Your task to perform on an android device: turn off smart reply in the gmail app Image 0: 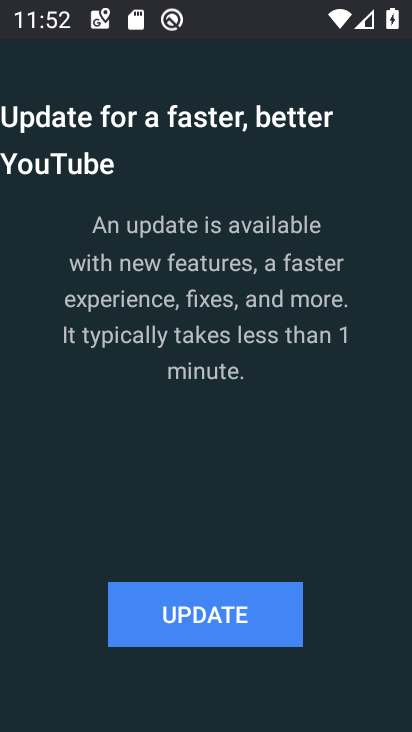
Step 0: drag from (341, 535) to (352, 200)
Your task to perform on an android device: turn off smart reply in the gmail app Image 1: 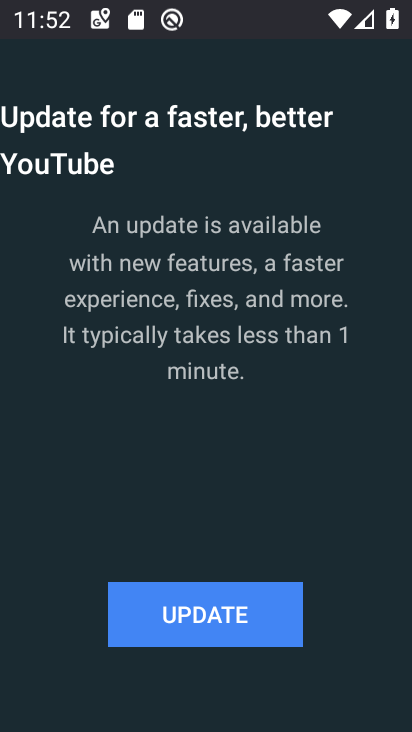
Step 1: press home button
Your task to perform on an android device: turn off smart reply in the gmail app Image 2: 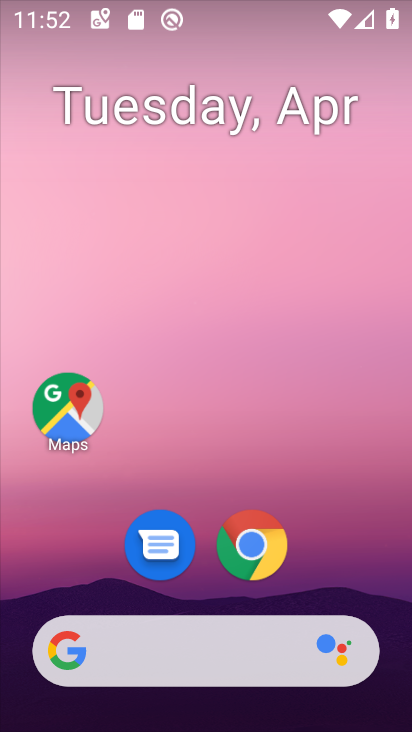
Step 2: drag from (354, 441) to (313, 23)
Your task to perform on an android device: turn off smart reply in the gmail app Image 3: 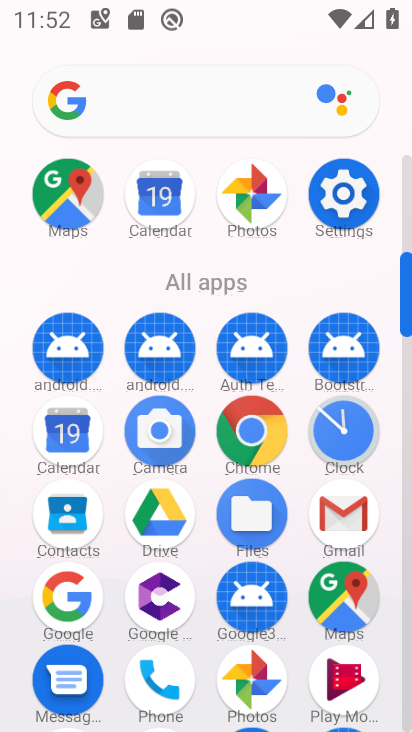
Step 3: click (330, 512)
Your task to perform on an android device: turn off smart reply in the gmail app Image 4: 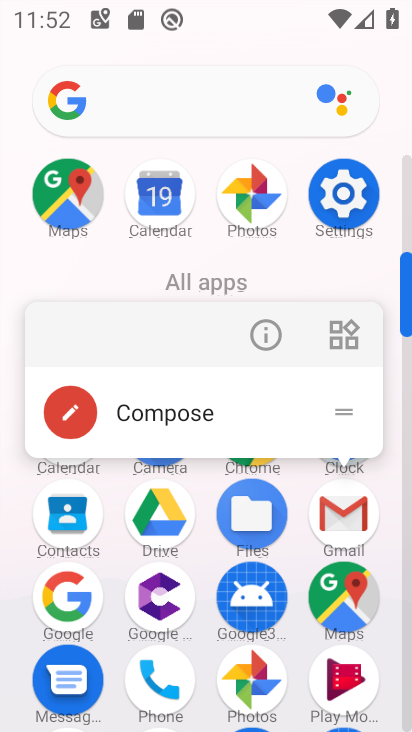
Step 4: click (339, 504)
Your task to perform on an android device: turn off smart reply in the gmail app Image 5: 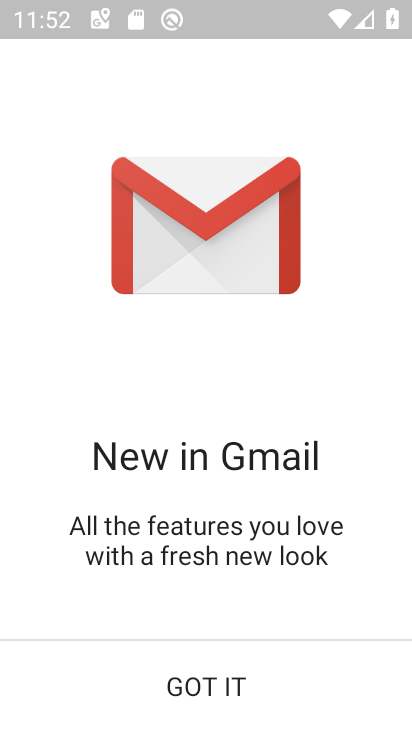
Step 5: click (239, 688)
Your task to perform on an android device: turn off smart reply in the gmail app Image 6: 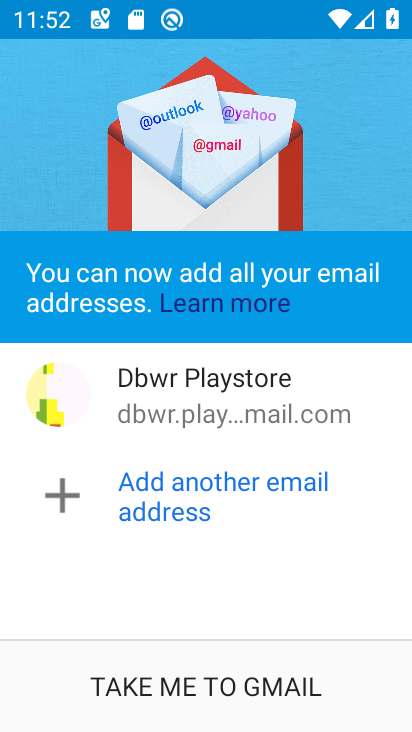
Step 6: click (232, 687)
Your task to perform on an android device: turn off smart reply in the gmail app Image 7: 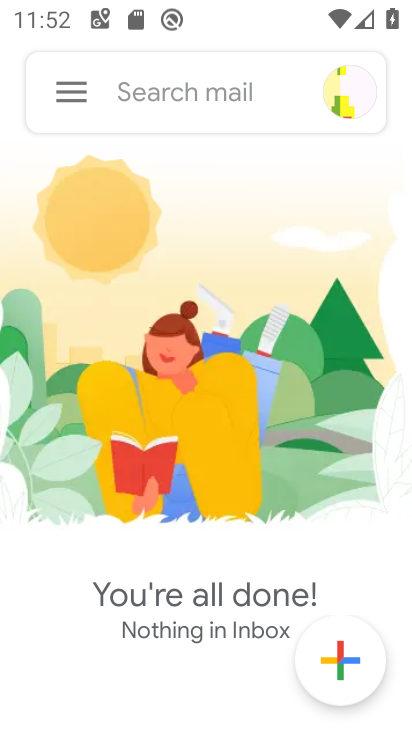
Step 7: click (59, 96)
Your task to perform on an android device: turn off smart reply in the gmail app Image 8: 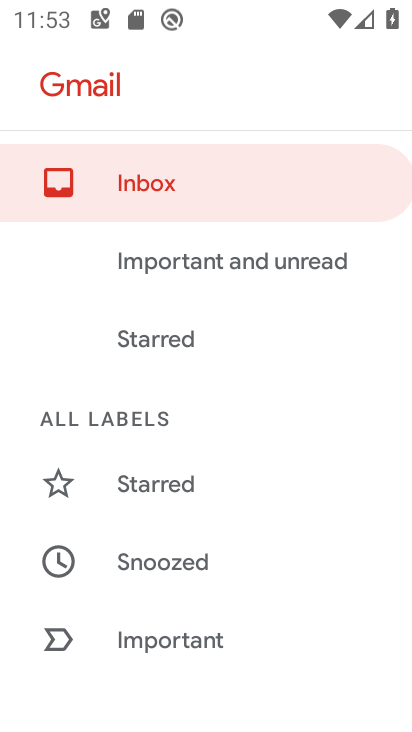
Step 8: drag from (308, 589) to (330, 203)
Your task to perform on an android device: turn off smart reply in the gmail app Image 9: 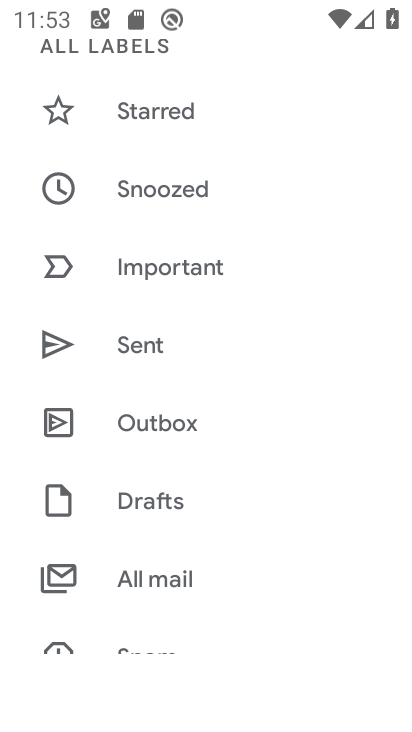
Step 9: drag from (292, 592) to (268, 84)
Your task to perform on an android device: turn off smart reply in the gmail app Image 10: 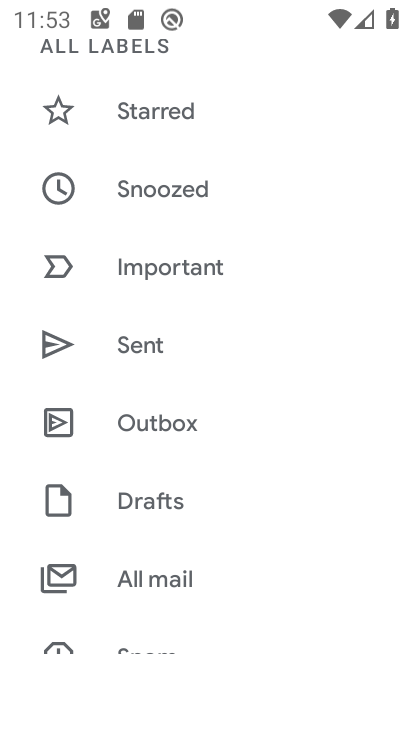
Step 10: drag from (245, 559) to (261, 266)
Your task to perform on an android device: turn off smart reply in the gmail app Image 11: 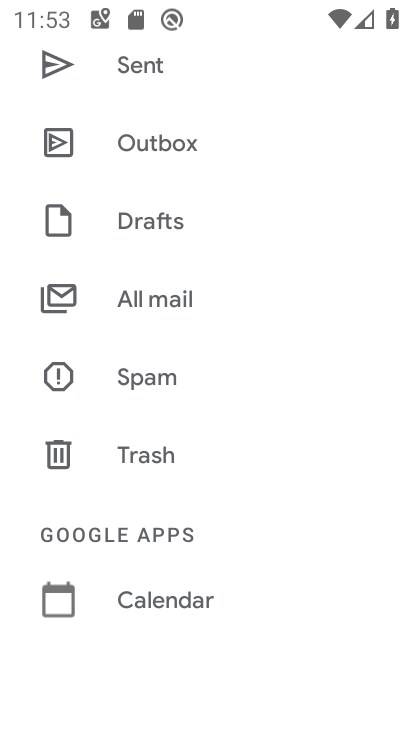
Step 11: drag from (193, 173) to (153, 605)
Your task to perform on an android device: turn off smart reply in the gmail app Image 12: 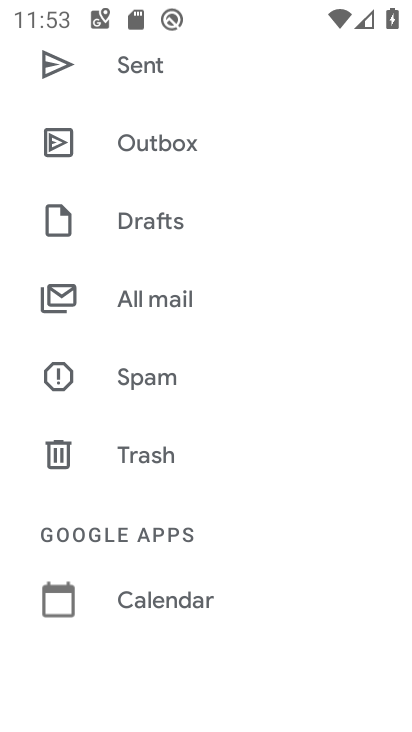
Step 12: drag from (229, 176) to (239, 598)
Your task to perform on an android device: turn off smart reply in the gmail app Image 13: 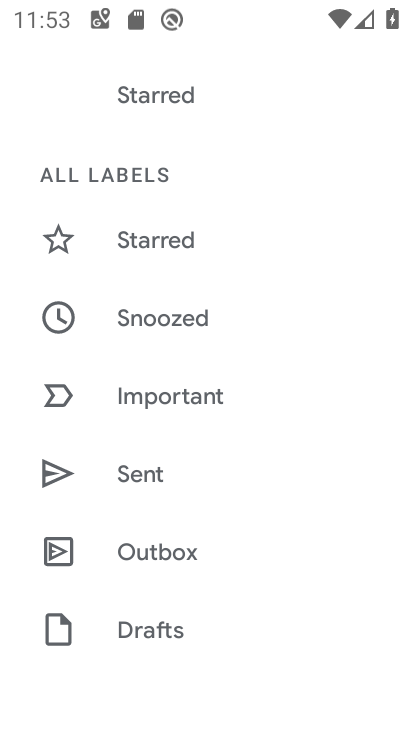
Step 13: drag from (235, 321) to (220, 580)
Your task to perform on an android device: turn off smart reply in the gmail app Image 14: 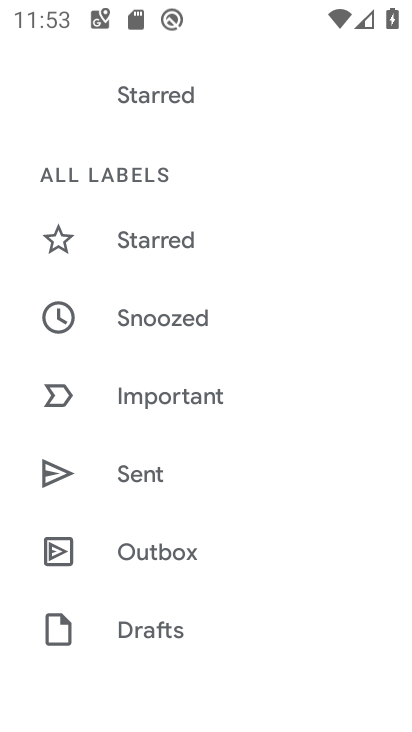
Step 14: drag from (237, 310) to (252, 700)
Your task to perform on an android device: turn off smart reply in the gmail app Image 15: 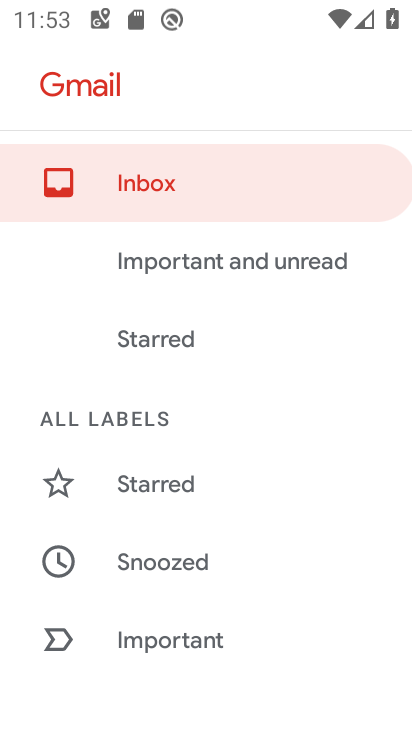
Step 15: drag from (286, 601) to (319, 143)
Your task to perform on an android device: turn off smart reply in the gmail app Image 16: 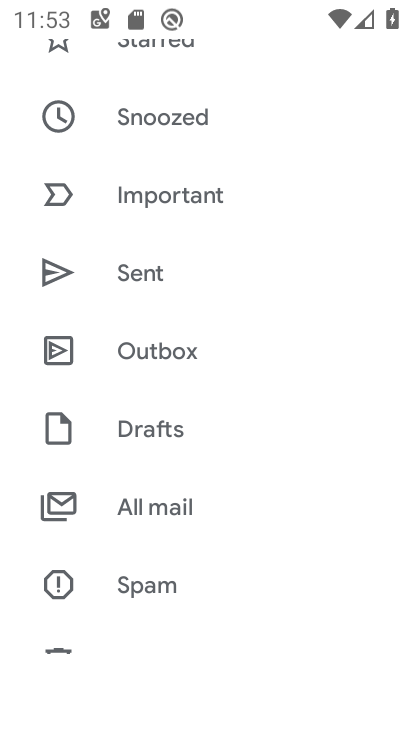
Step 16: drag from (215, 647) to (217, 206)
Your task to perform on an android device: turn off smart reply in the gmail app Image 17: 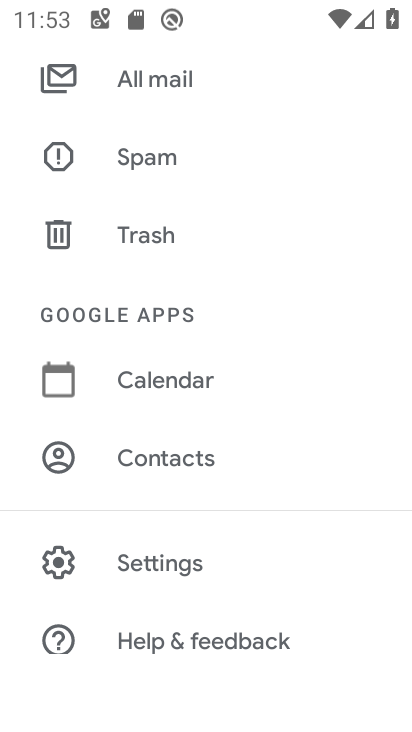
Step 17: click (179, 570)
Your task to perform on an android device: turn off smart reply in the gmail app Image 18: 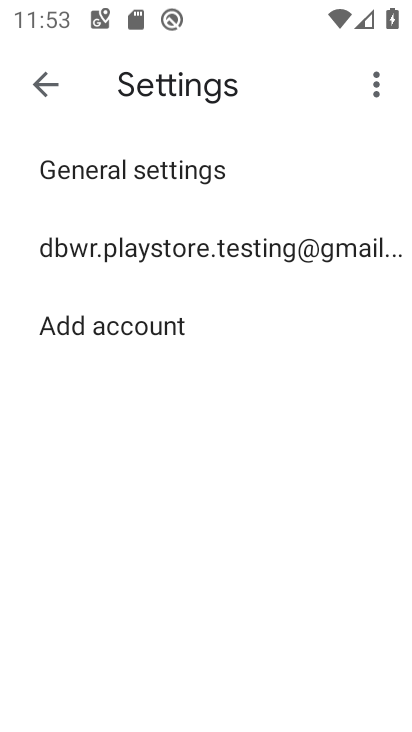
Step 18: click (117, 261)
Your task to perform on an android device: turn off smart reply in the gmail app Image 19: 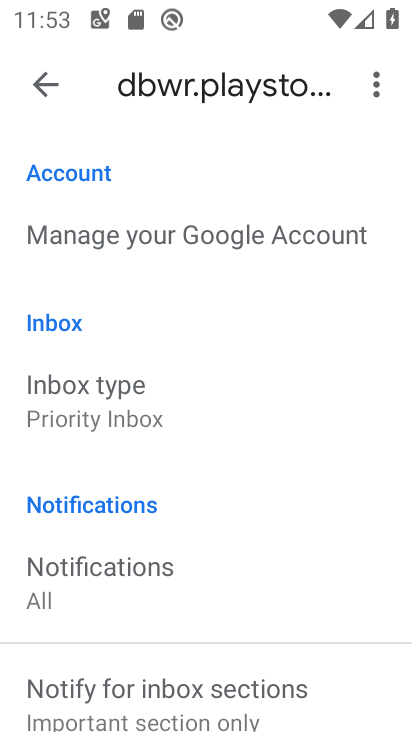
Step 19: drag from (285, 605) to (275, 391)
Your task to perform on an android device: turn off smart reply in the gmail app Image 20: 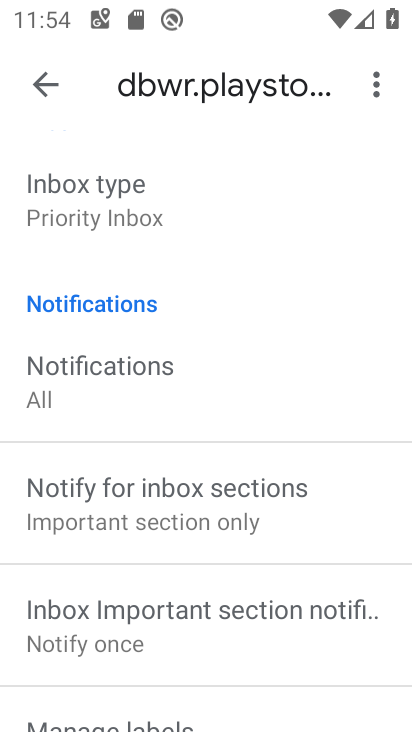
Step 20: drag from (231, 635) to (189, 190)
Your task to perform on an android device: turn off smart reply in the gmail app Image 21: 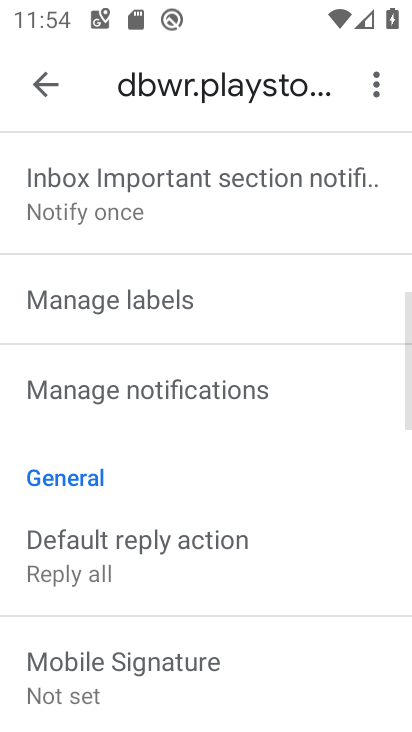
Step 21: drag from (239, 581) to (283, 176)
Your task to perform on an android device: turn off smart reply in the gmail app Image 22: 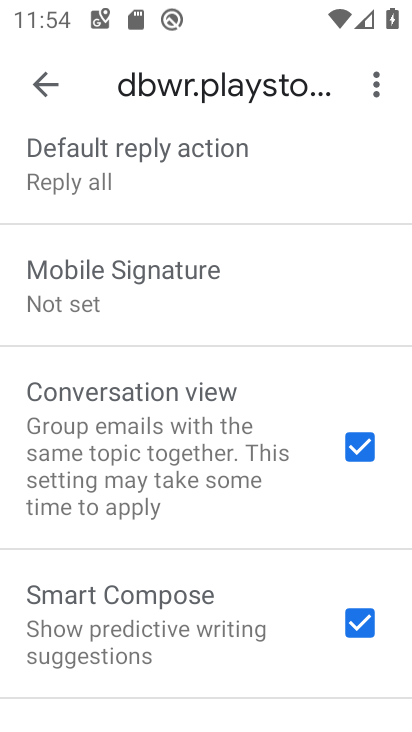
Step 22: drag from (136, 638) to (133, 131)
Your task to perform on an android device: turn off smart reply in the gmail app Image 23: 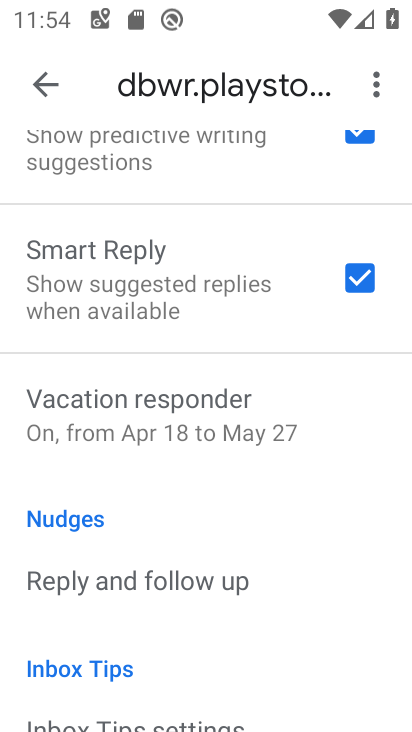
Step 23: drag from (176, 470) to (188, 194)
Your task to perform on an android device: turn off smart reply in the gmail app Image 24: 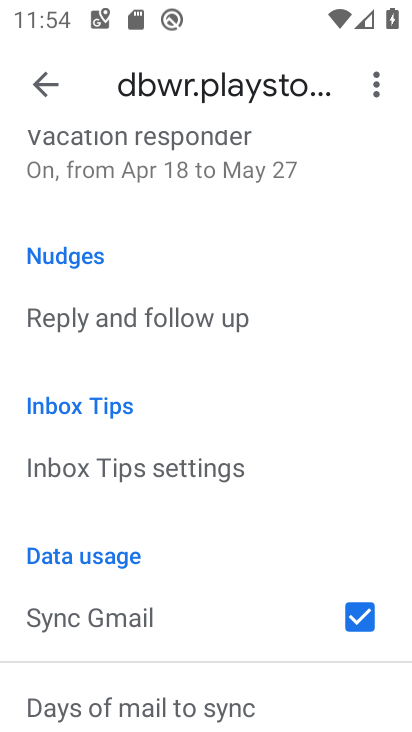
Step 24: drag from (203, 282) to (215, 632)
Your task to perform on an android device: turn off smart reply in the gmail app Image 25: 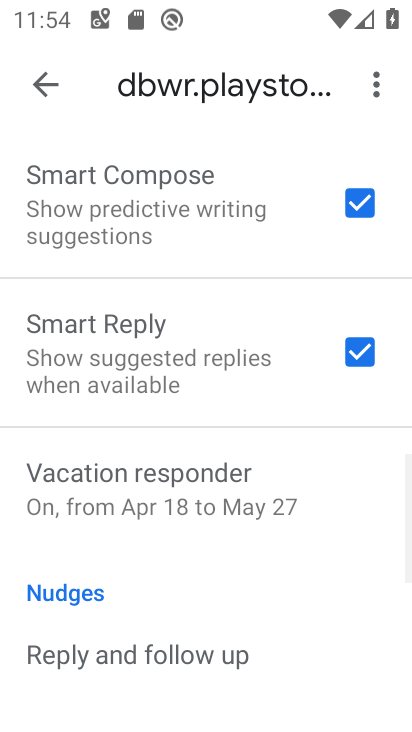
Step 25: drag from (76, 329) to (115, 473)
Your task to perform on an android device: turn off smart reply in the gmail app Image 26: 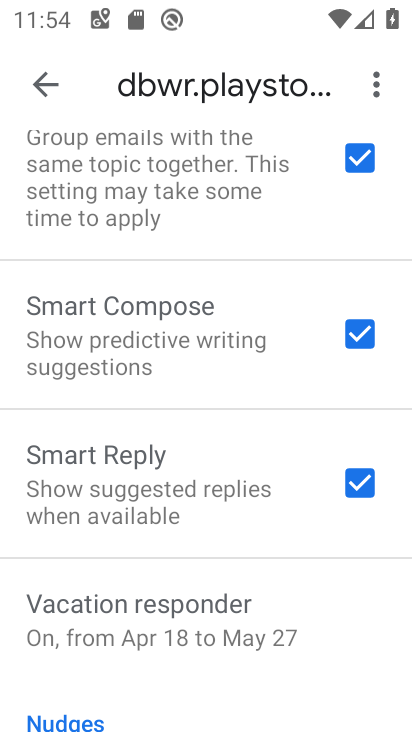
Step 26: click (355, 479)
Your task to perform on an android device: turn off smart reply in the gmail app Image 27: 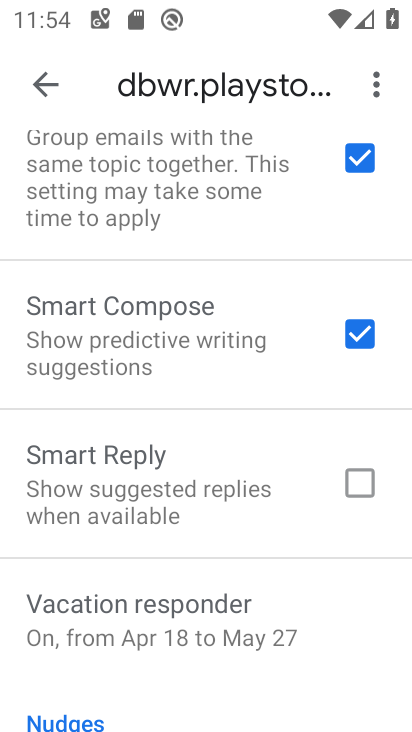
Step 27: task complete